Your task to perform on an android device: visit the assistant section in the google photos Image 0: 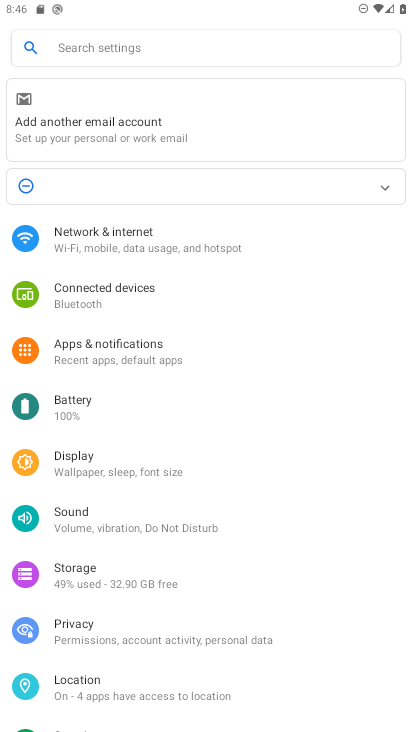
Step 0: press home button
Your task to perform on an android device: visit the assistant section in the google photos Image 1: 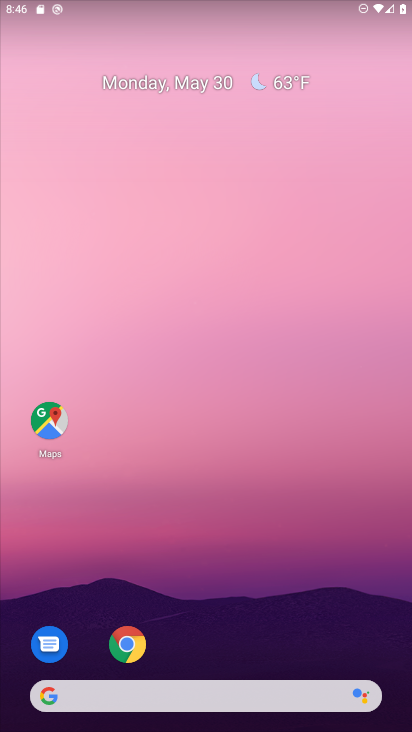
Step 1: drag from (222, 654) to (249, 71)
Your task to perform on an android device: visit the assistant section in the google photos Image 2: 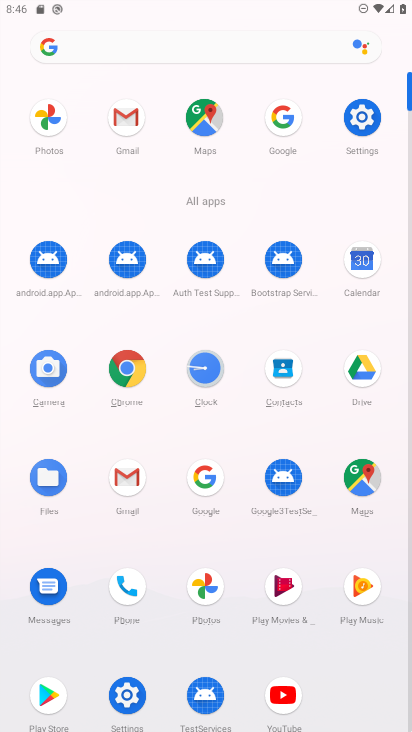
Step 2: click (213, 578)
Your task to perform on an android device: visit the assistant section in the google photos Image 3: 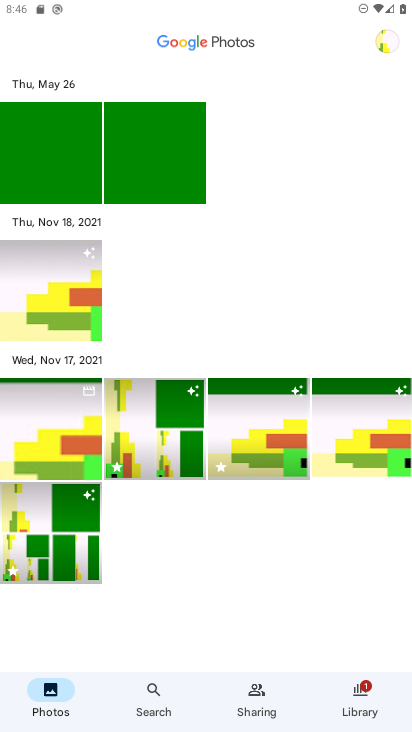
Step 3: task complete